Your task to perform on an android device: turn pop-ups off in chrome Image 0: 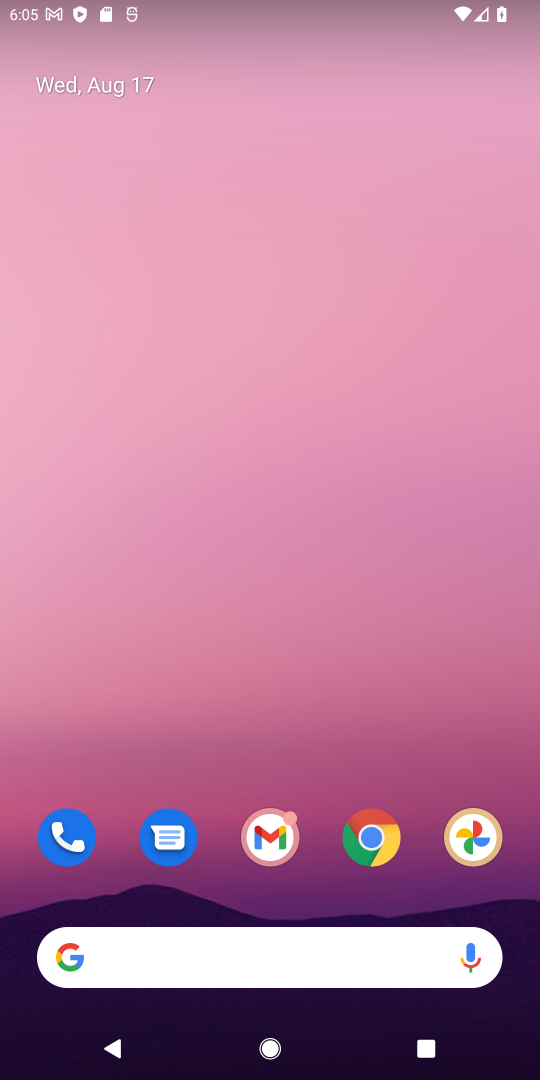
Step 0: click (367, 837)
Your task to perform on an android device: turn pop-ups off in chrome Image 1: 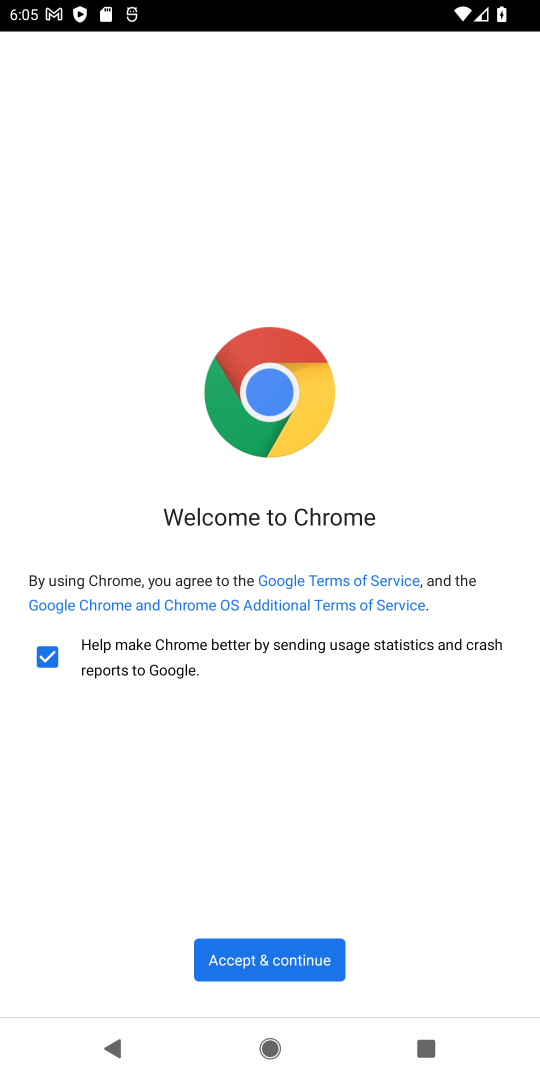
Step 1: click (269, 983)
Your task to perform on an android device: turn pop-ups off in chrome Image 2: 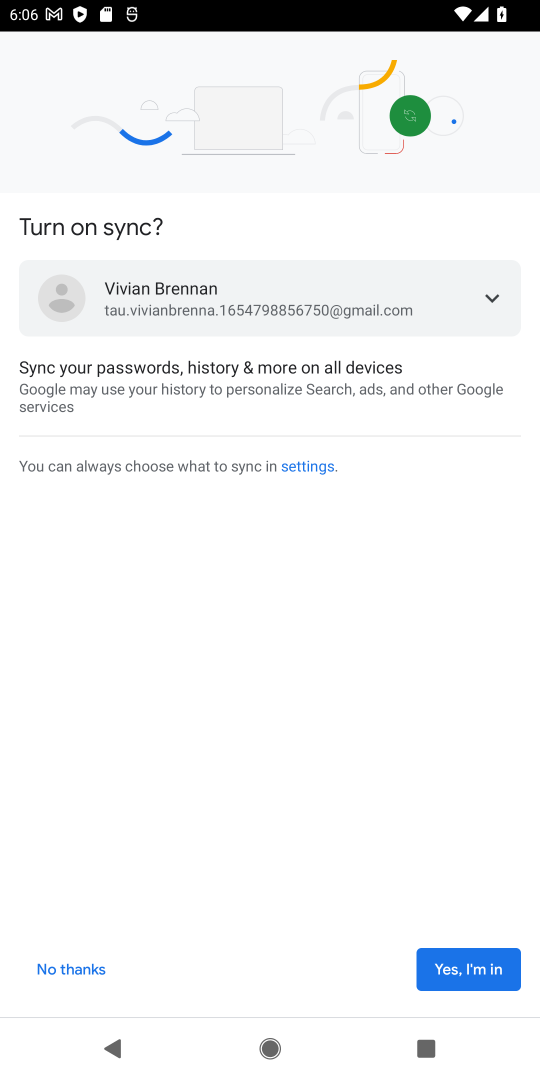
Step 2: click (432, 983)
Your task to perform on an android device: turn pop-ups off in chrome Image 3: 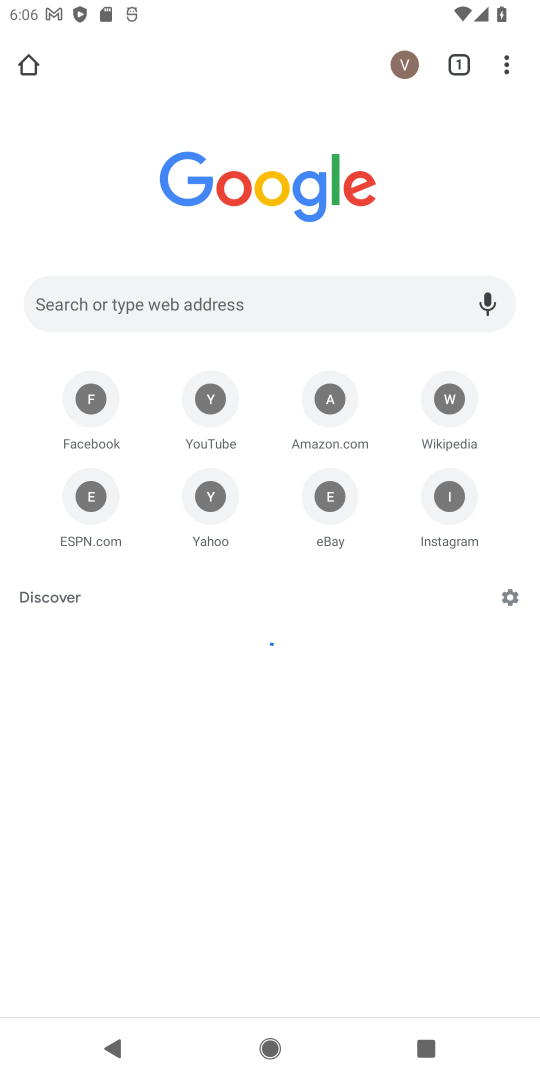
Step 3: drag from (506, 60) to (301, 562)
Your task to perform on an android device: turn pop-ups off in chrome Image 4: 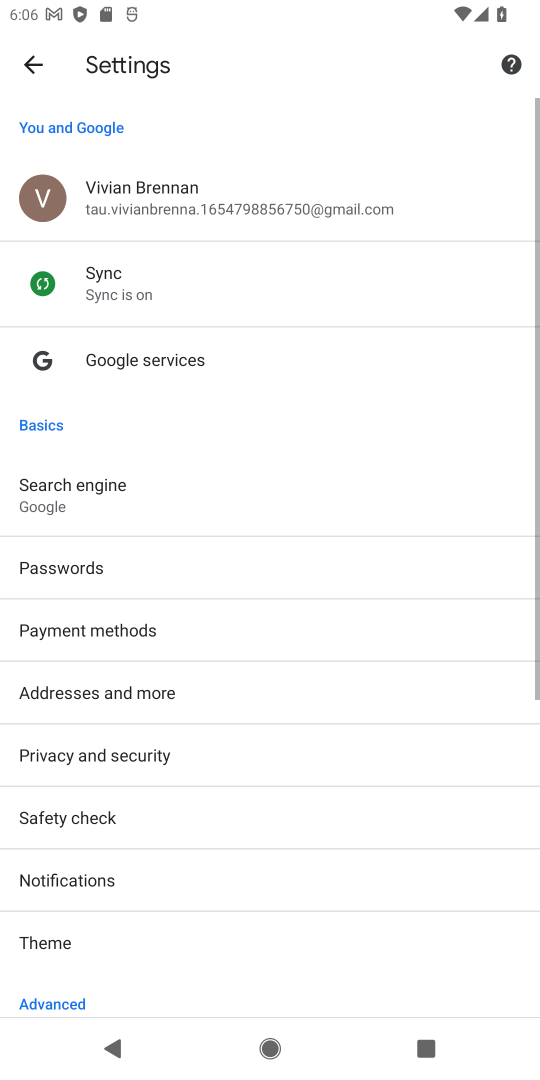
Step 4: drag from (194, 920) to (362, 138)
Your task to perform on an android device: turn pop-ups off in chrome Image 5: 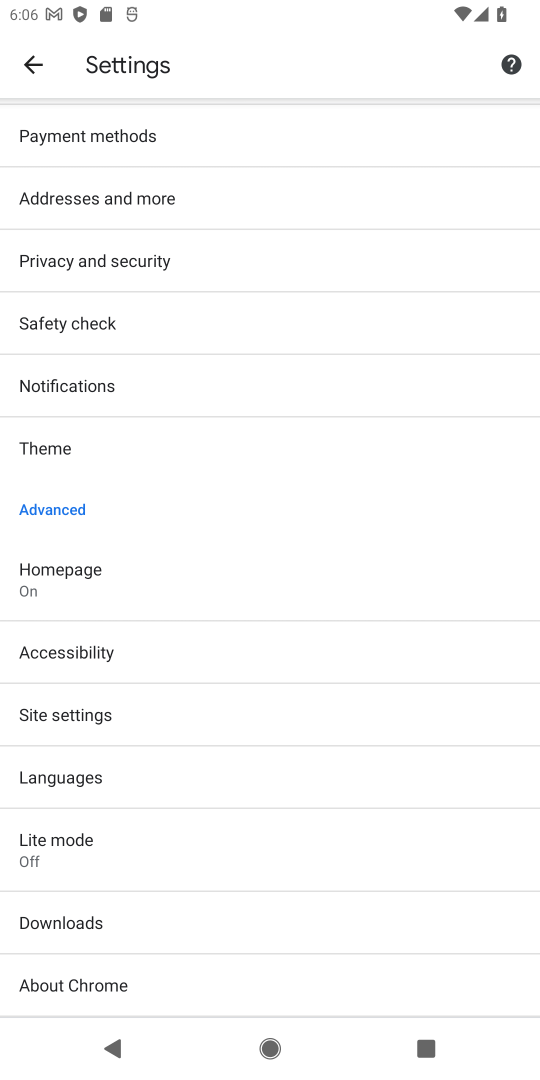
Step 5: click (91, 721)
Your task to perform on an android device: turn pop-ups off in chrome Image 6: 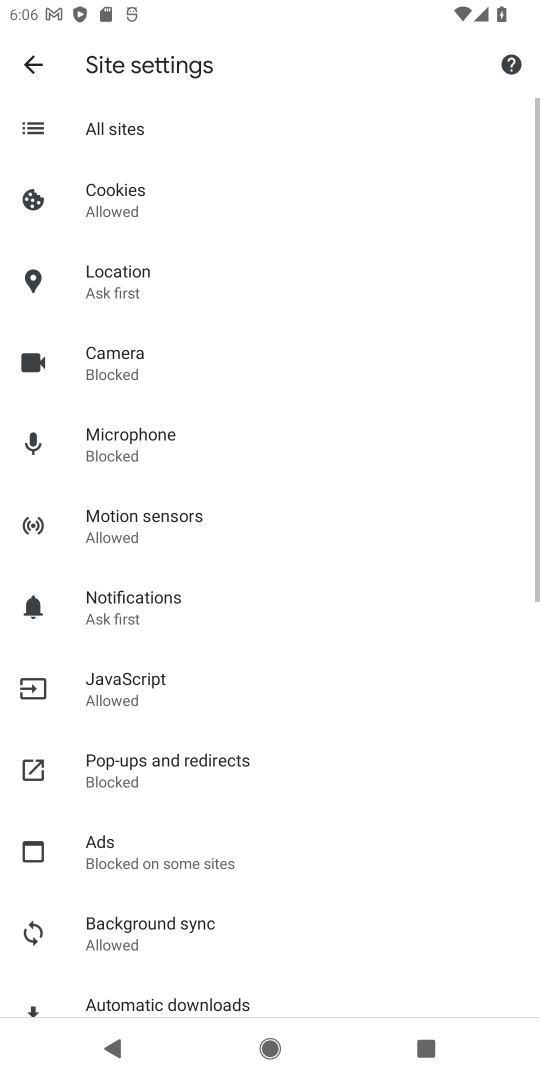
Step 6: click (137, 762)
Your task to perform on an android device: turn pop-ups off in chrome Image 7: 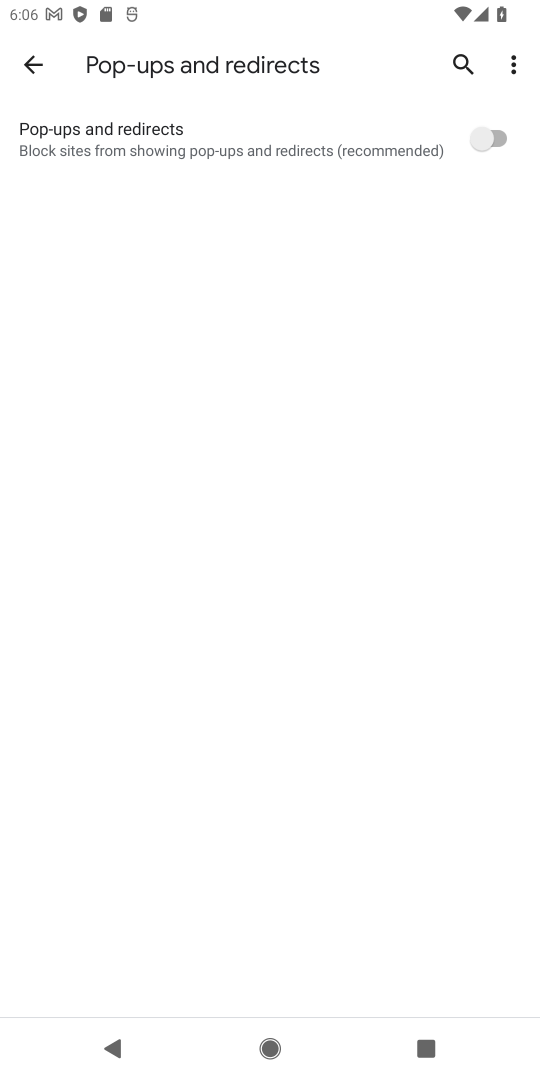
Step 7: task complete